Your task to perform on an android device: Go to sound settings Image 0: 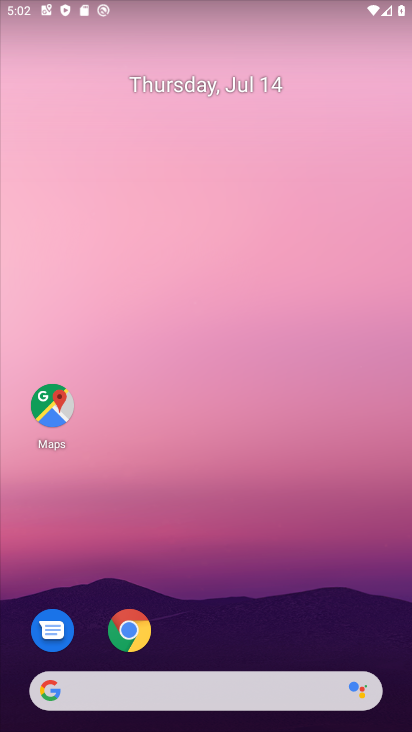
Step 0: drag from (201, 671) to (205, 24)
Your task to perform on an android device: Go to sound settings Image 1: 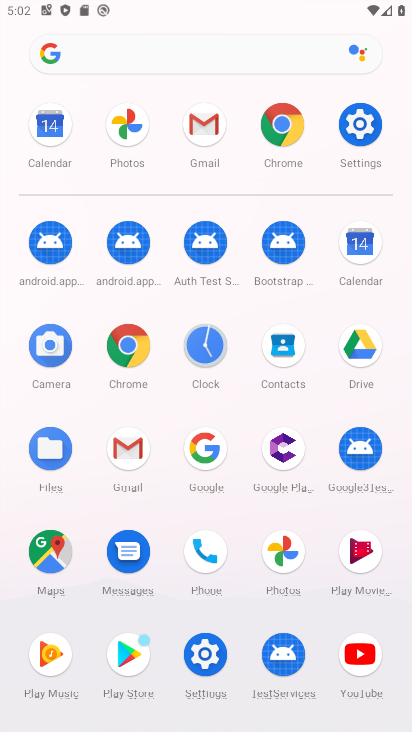
Step 1: click (361, 116)
Your task to perform on an android device: Go to sound settings Image 2: 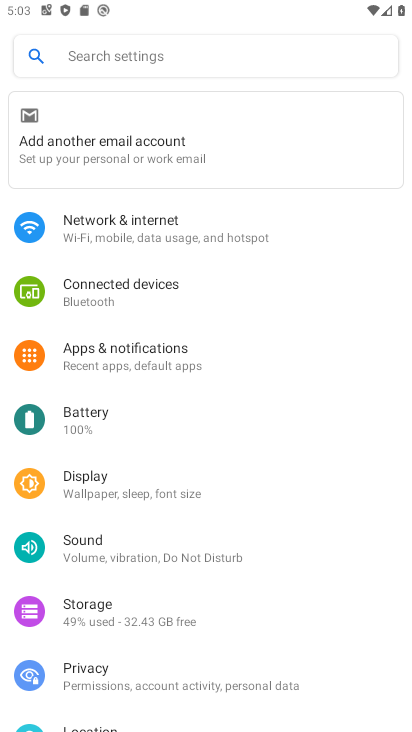
Step 2: click (125, 542)
Your task to perform on an android device: Go to sound settings Image 3: 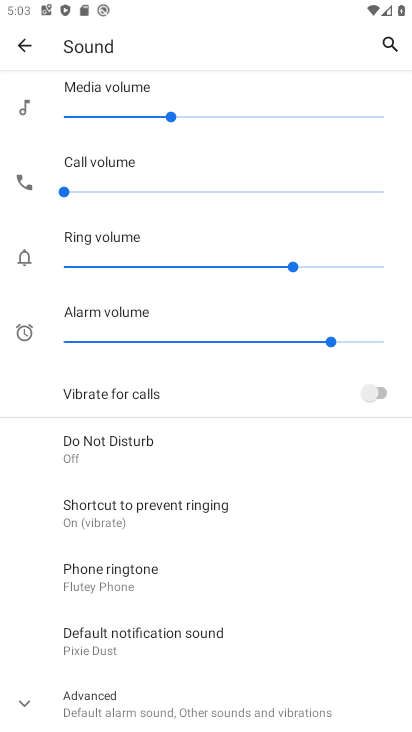
Step 3: task complete